Your task to perform on an android device: What is the recent news? Image 0: 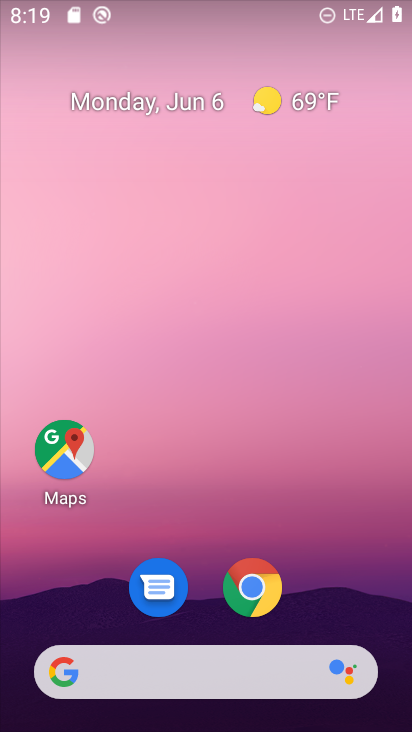
Step 0: click (250, 585)
Your task to perform on an android device: What is the recent news? Image 1: 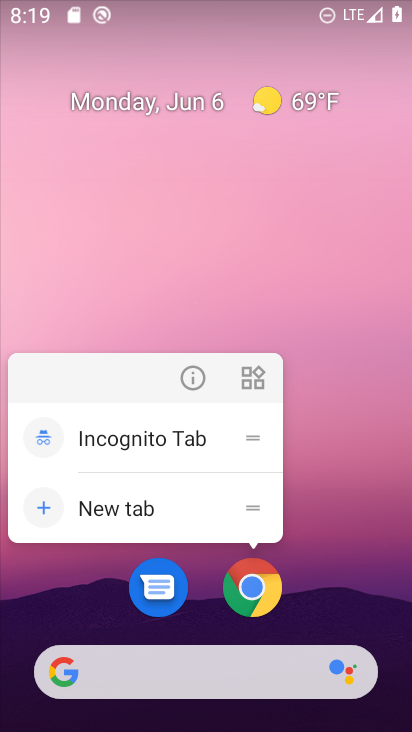
Step 1: click (250, 585)
Your task to perform on an android device: What is the recent news? Image 2: 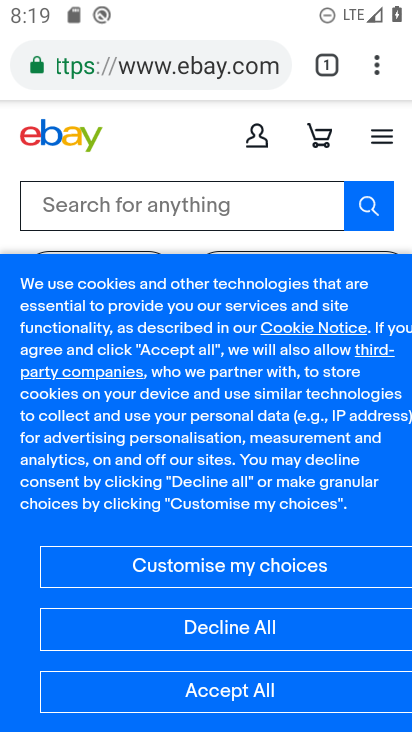
Step 2: click (211, 56)
Your task to perform on an android device: What is the recent news? Image 3: 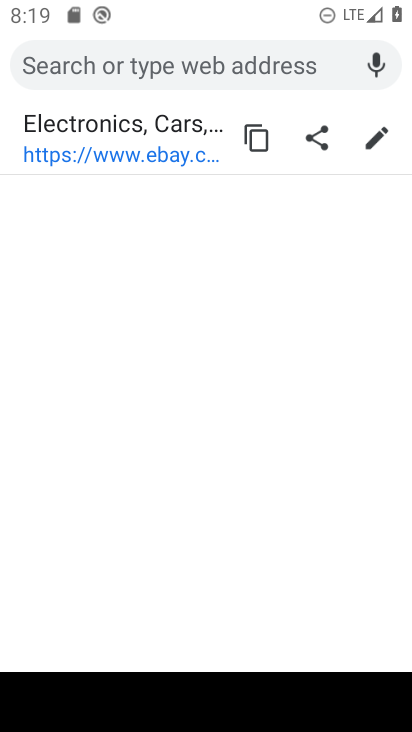
Step 3: type "news"
Your task to perform on an android device: What is the recent news? Image 4: 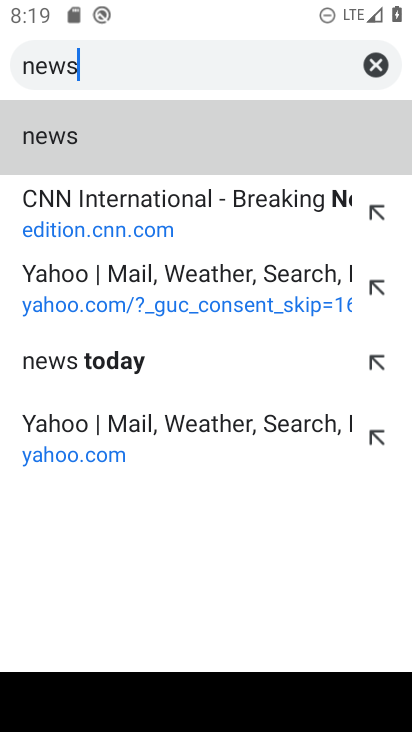
Step 4: click (54, 135)
Your task to perform on an android device: What is the recent news? Image 5: 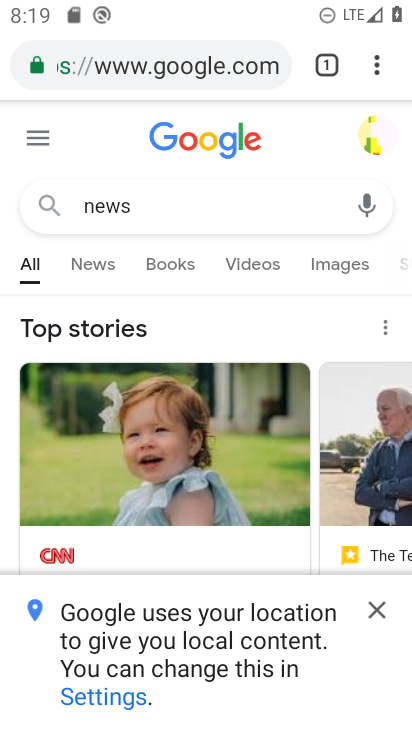
Step 5: click (108, 262)
Your task to perform on an android device: What is the recent news? Image 6: 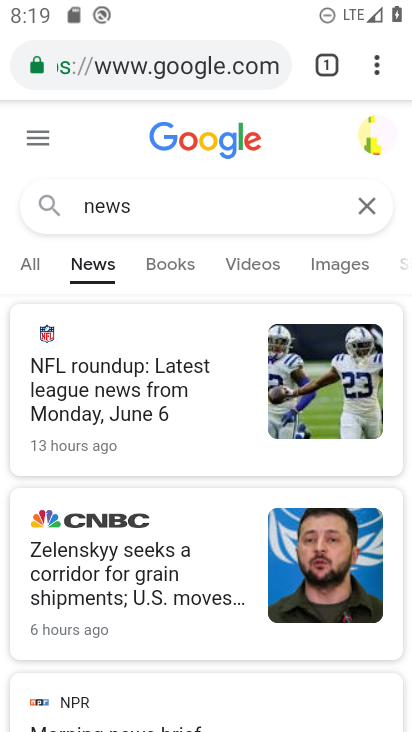
Step 6: task complete